Your task to perform on an android device: Open settings Image 0: 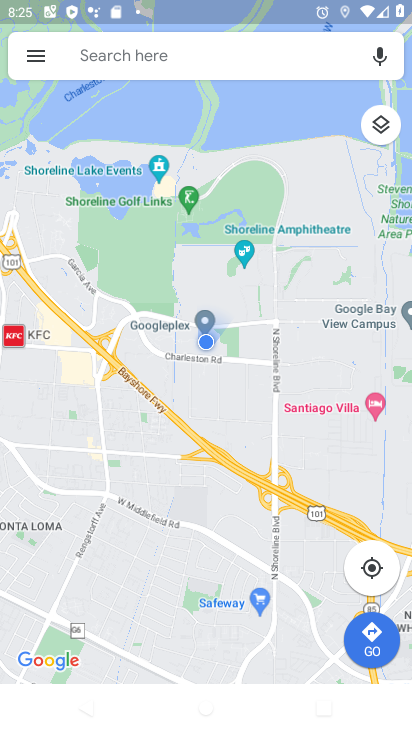
Step 0: press back button
Your task to perform on an android device: Open settings Image 1: 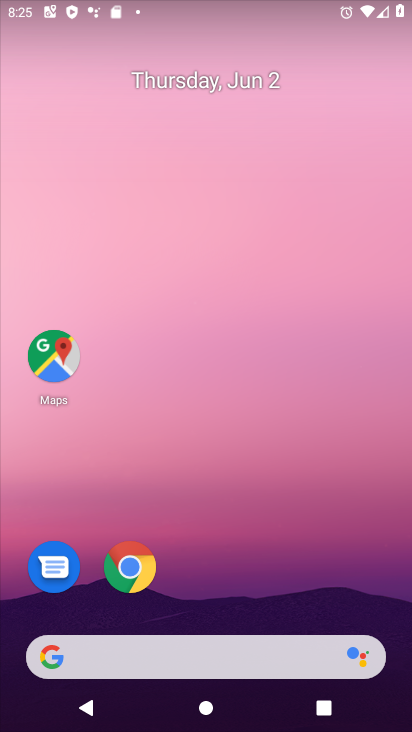
Step 1: drag from (250, 565) to (213, 127)
Your task to perform on an android device: Open settings Image 2: 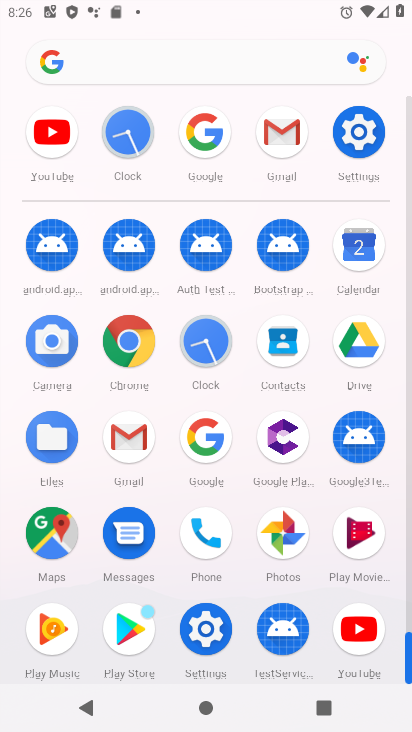
Step 2: click (359, 131)
Your task to perform on an android device: Open settings Image 3: 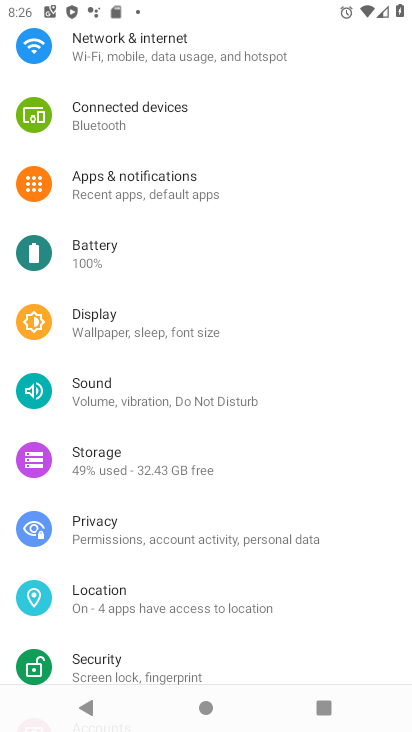
Step 3: task complete